Your task to perform on an android device: toggle show notifications on the lock screen Image 0: 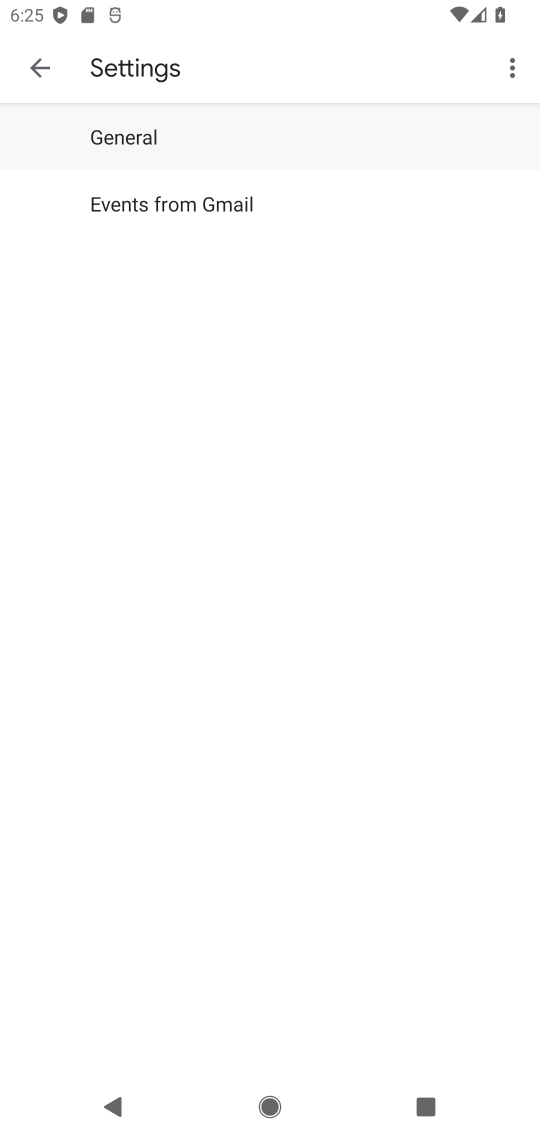
Step 0: press home button
Your task to perform on an android device: toggle show notifications on the lock screen Image 1: 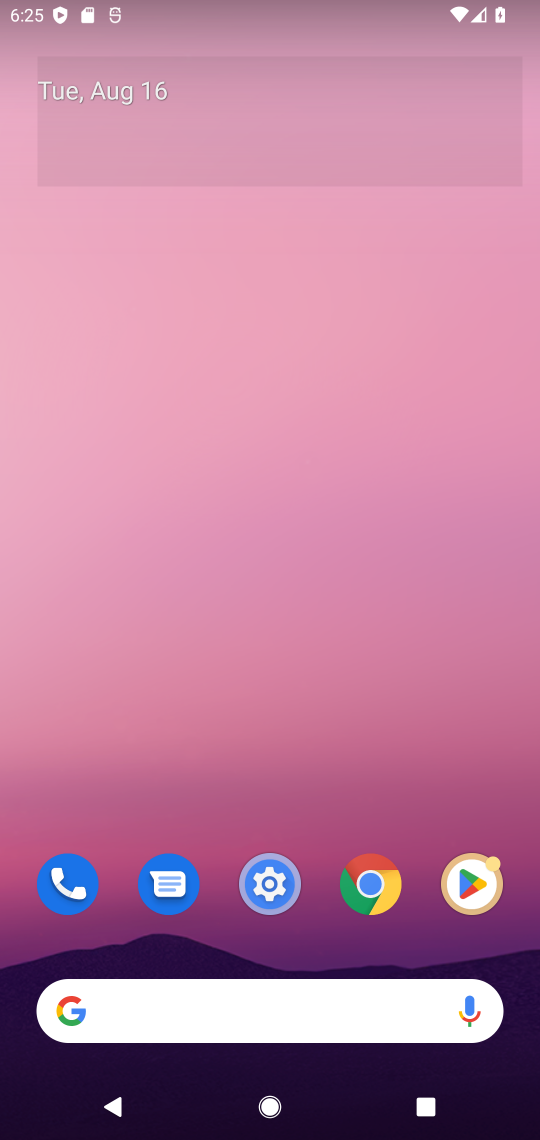
Step 1: click (273, 906)
Your task to perform on an android device: toggle show notifications on the lock screen Image 2: 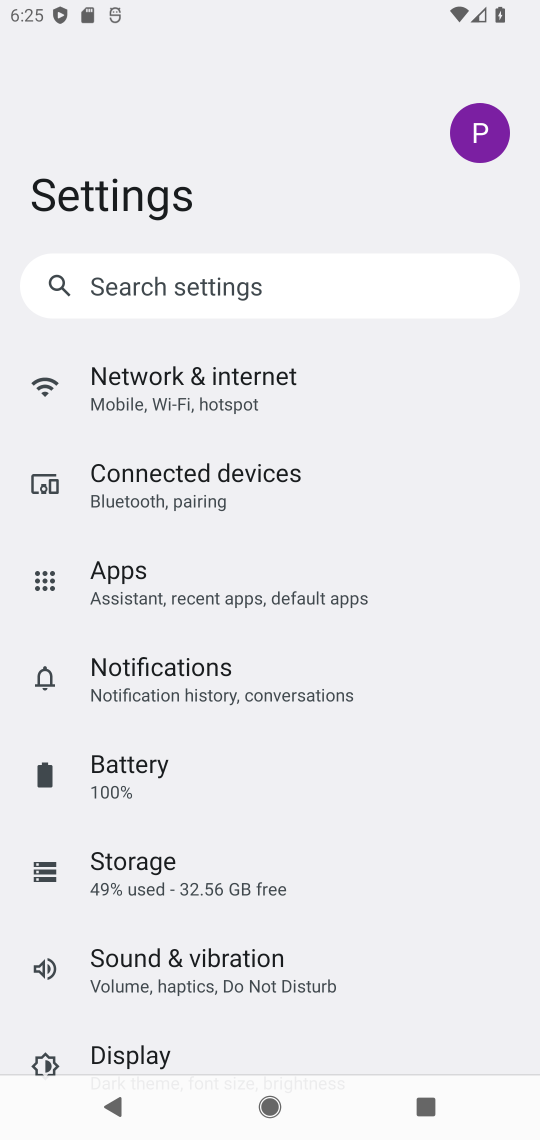
Step 2: click (134, 665)
Your task to perform on an android device: toggle show notifications on the lock screen Image 3: 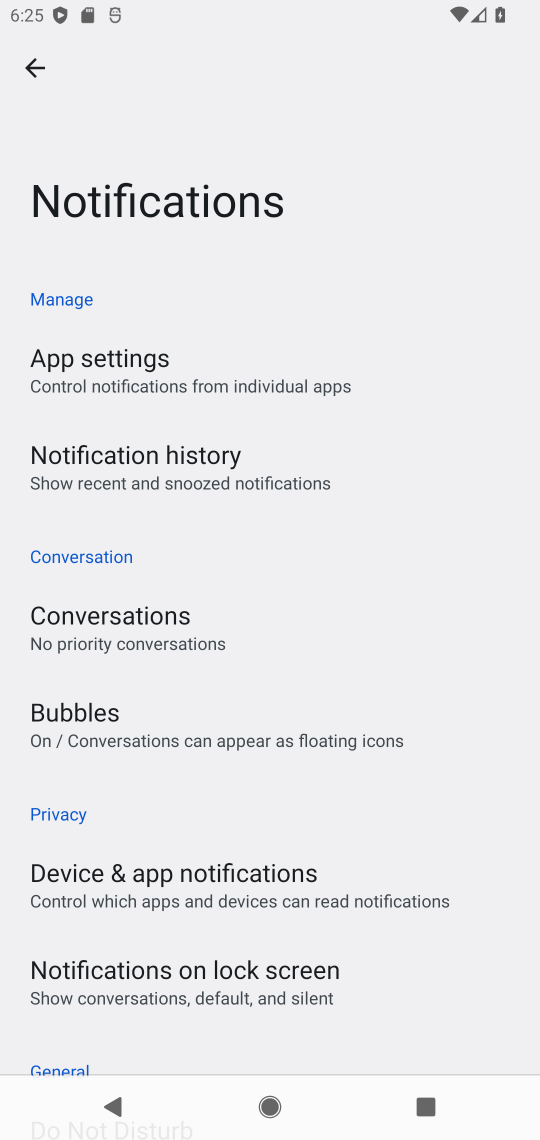
Step 3: click (246, 990)
Your task to perform on an android device: toggle show notifications on the lock screen Image 4: 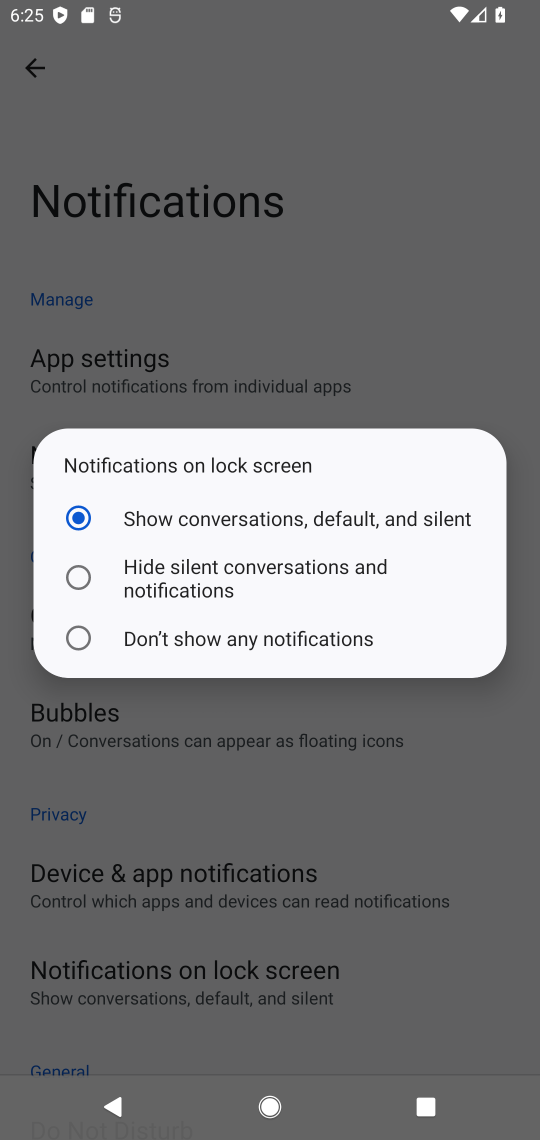
Step 4: click (83, 655)
Your task to perform on an android device: toggle show notifications on the lock screen Image 5: 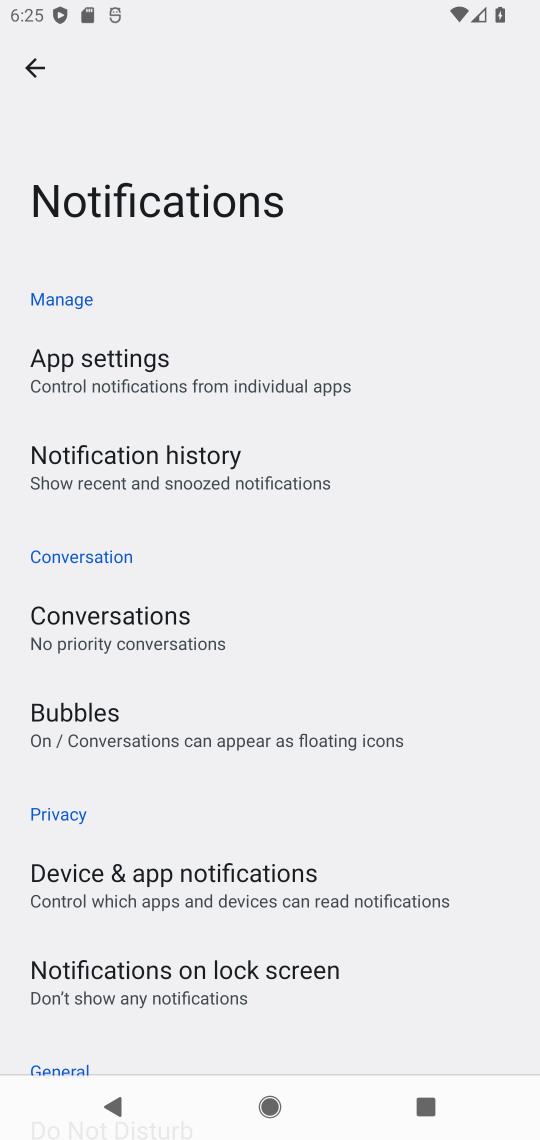
Step 5: task complete